Your task to perform on an android device: Go to ESPN.com Image 0: 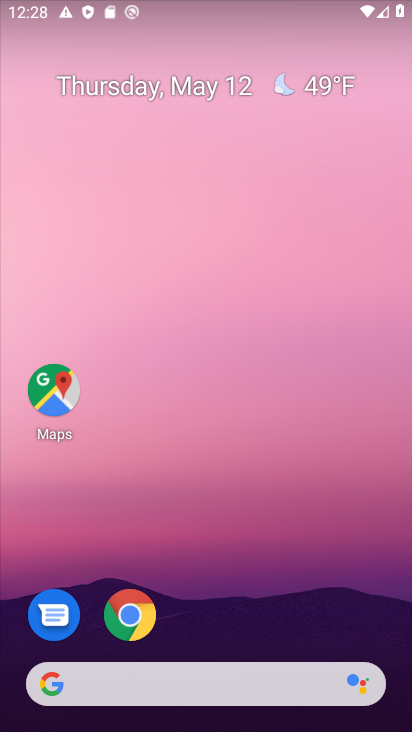
Step 0: drag from (293, 718) to (255, 261)
Your task to perform on an android device: Go to ESPN.com Image 1: 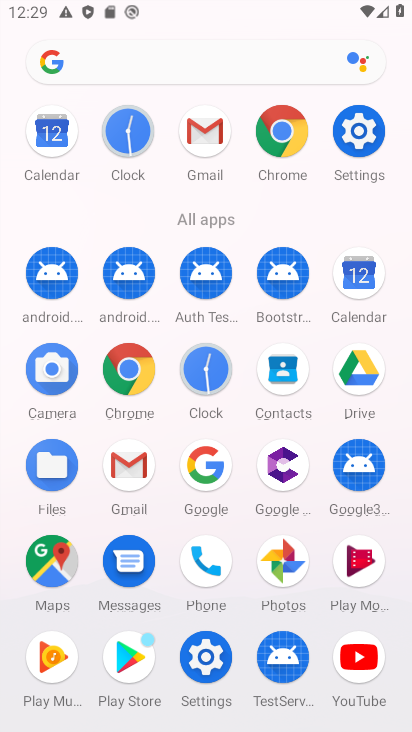
Step 1: click (132, 359)
Your task to perform on an android device: Go to ESPN.com Image 2: 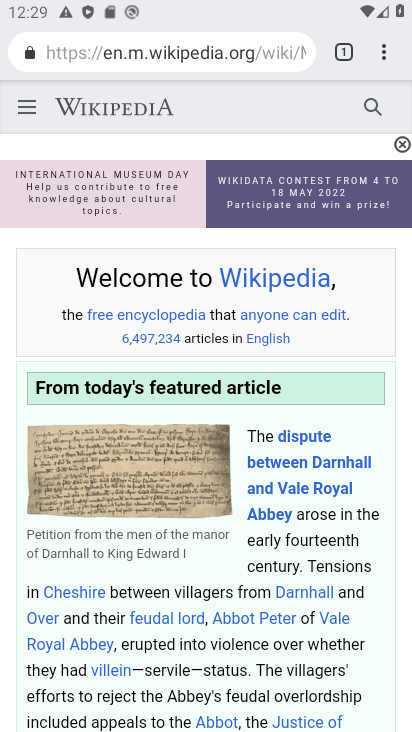
Step 2: click (161, 49)
Your task to perform on an android device: Go to ESPN.com Image 3: 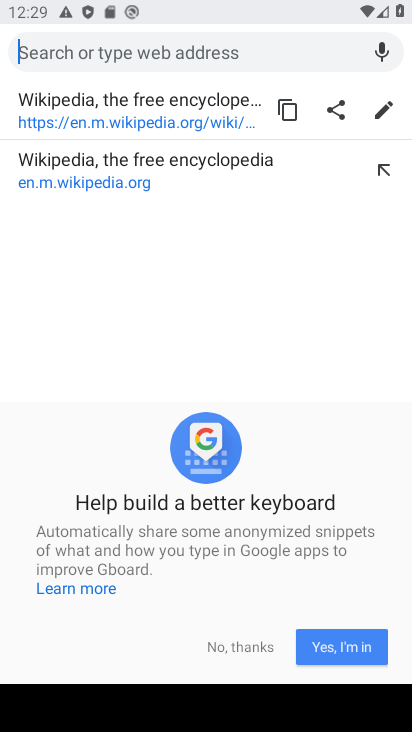
Step 3: click (227, 650)
Your task to perform on an android device: Go to ESPN.com Image 4: 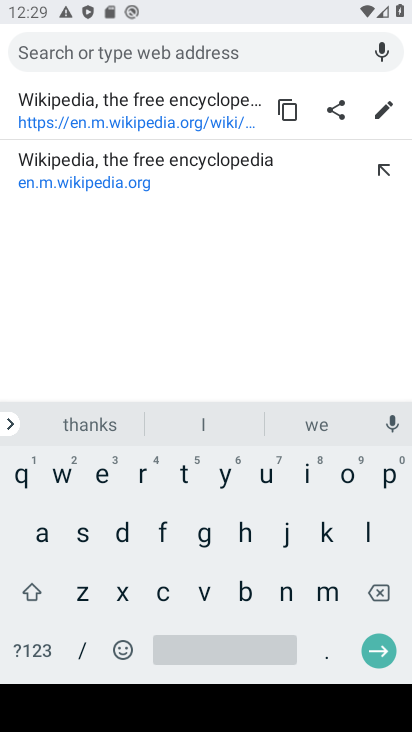
Step 4: click (91, 480)
Your task to perform on an android device: Go to ESPN.com Image 5: 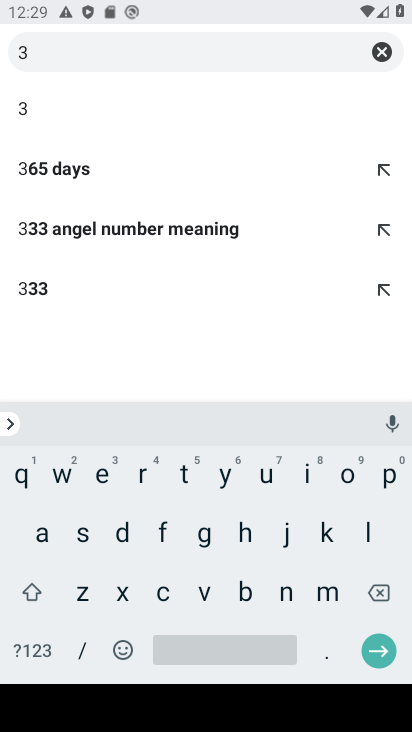
Step 5: click (384, 589)
Your task to perform on an android device: Go to ESPN.com Image 6: 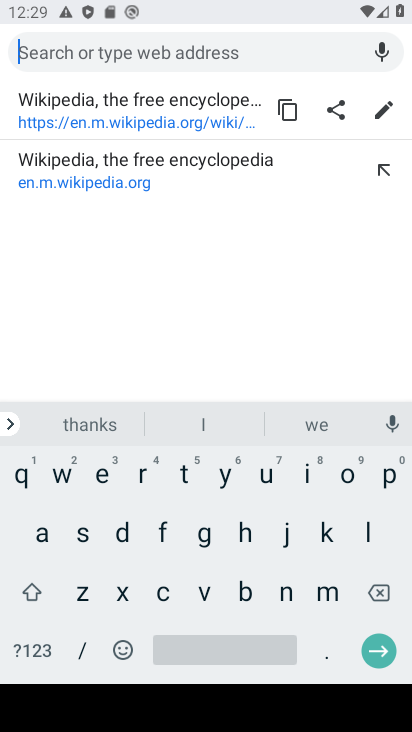
Step 6: click (98, 476)
Your task to perform on an android device: Go to ESPN.com Image 7: 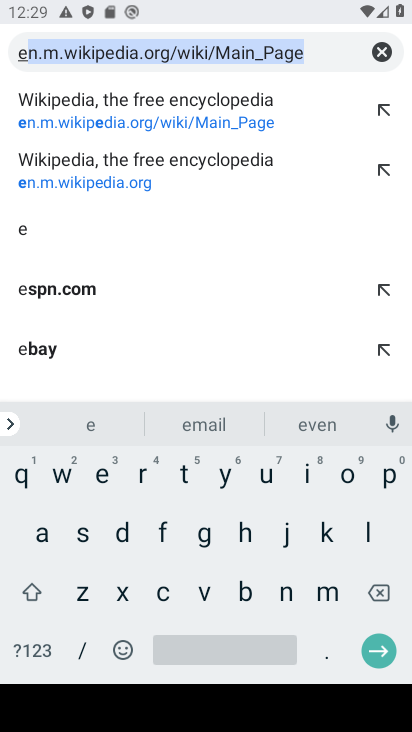
Step 7: click (78, 532)
Your task to perform on an android device: Go to ESPN.com Image 8: 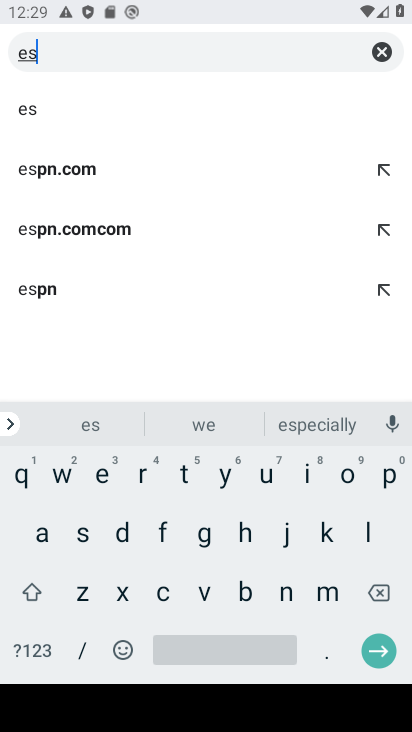
Step 8: click (386, 476)
Your task to perform on an android device: Go to ESPN.com Image 9: 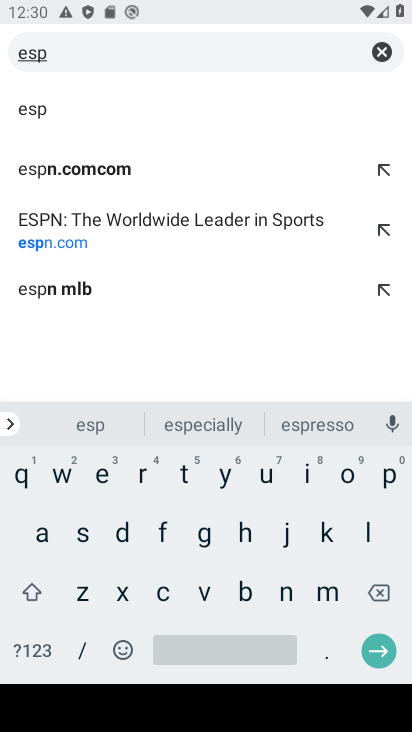
Step 9: click (84, 104)
Your task to perform on an android device: Go to ESPN.com Image 10: 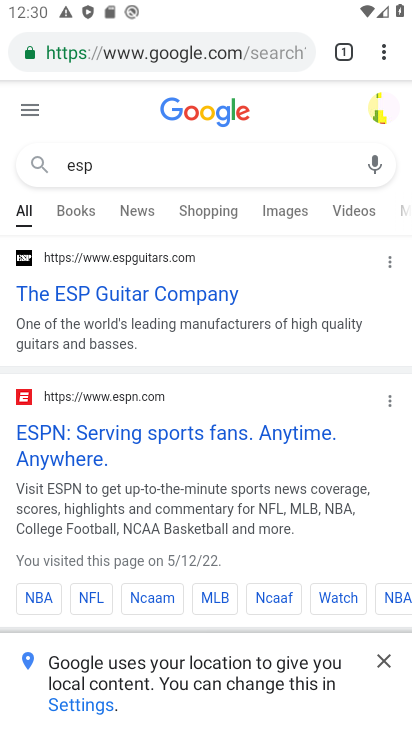
Step 10: click (53, 434)
Your task to perform on an android device: Go to ESPN.com Image 11: 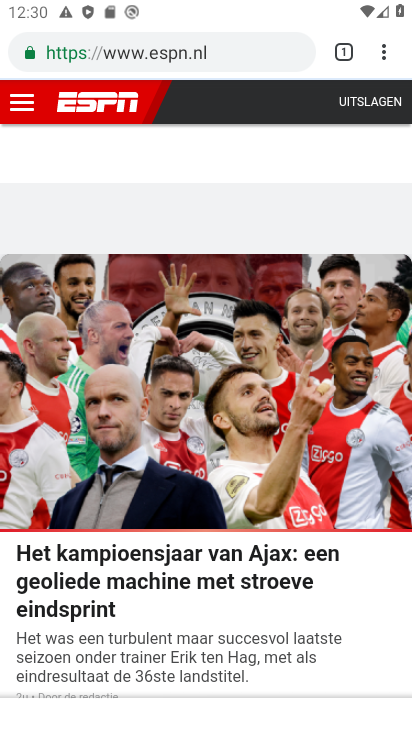
Step 11: task complete